Your task to perform on an android device: Go to wifi settings Image 0: 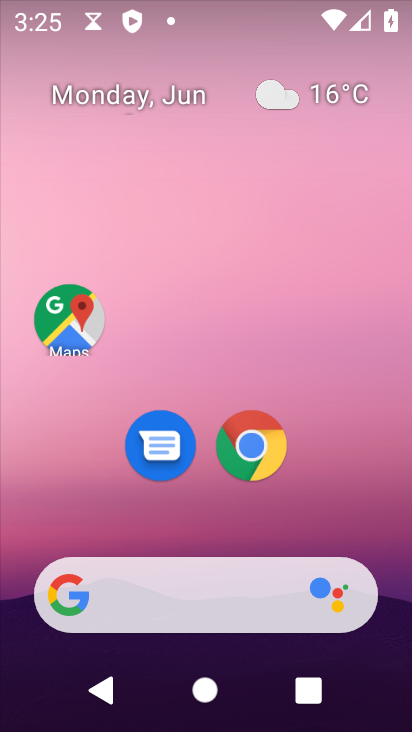
Step 0: click (208, 97)
Your task to perform on an android device: Go to wifi settings Image 1: 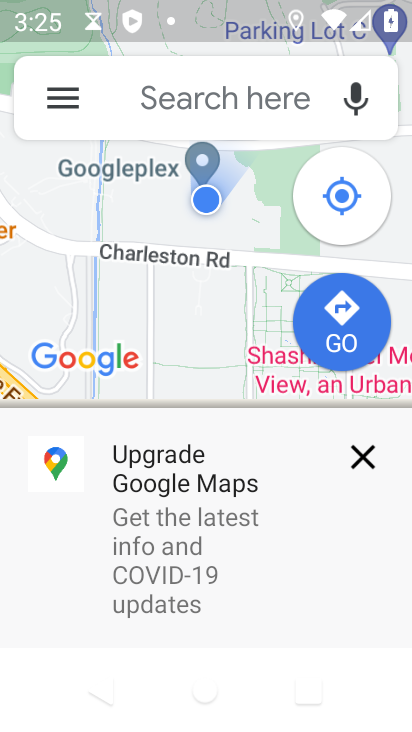
Step 1: press home button
Your task to perform on an android device: Go to wifi settings Image 2: 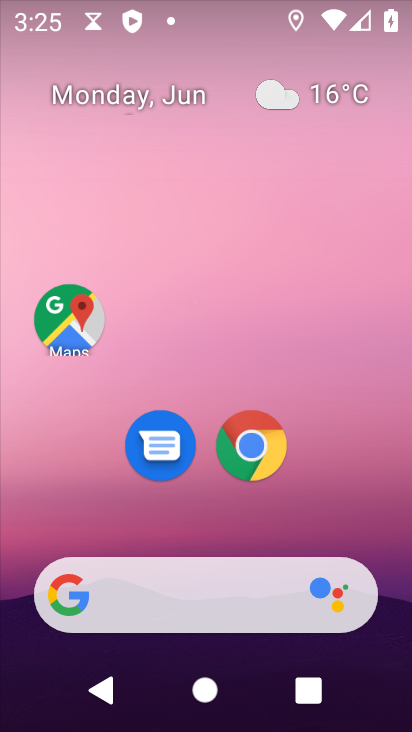
Step 2: drag from (261, 543) to (333, 4)
Your task to perform on an android device: Go to wifi settings Image 3: 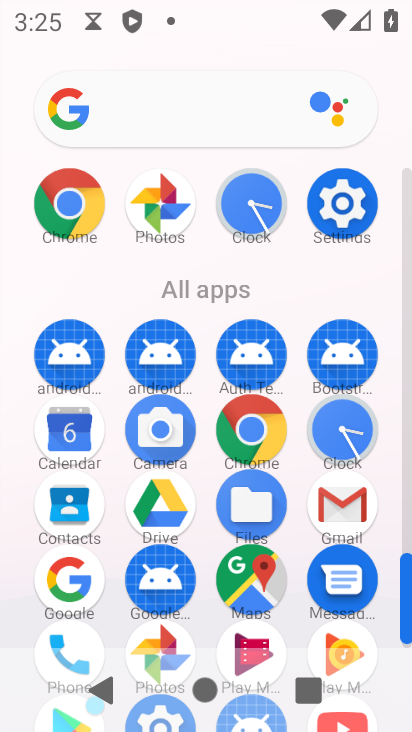
Step 3: drag from (209, 575) to (270, 206)
Your task to perform on an android device: Go to wifi settings Image 4: 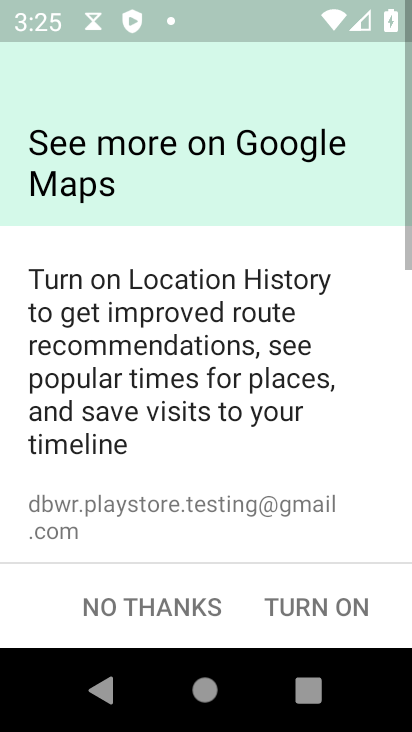
Step 4: press home button
Your task to perform on an android device: Go to wifi settings Image 5: 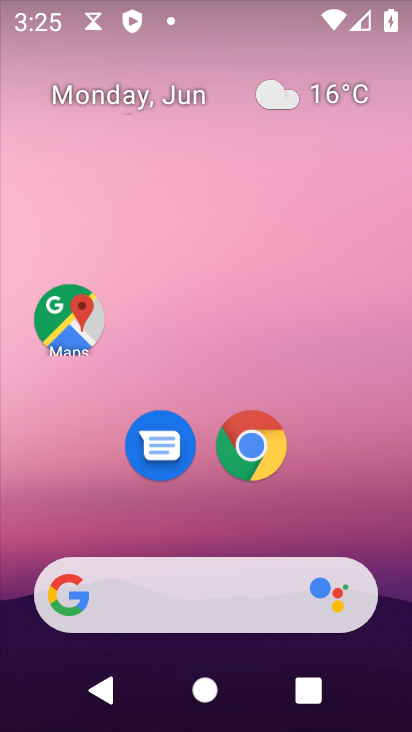
Step 5: drag from (111, 575) to (187, 144)
Your task to perform on an android device: Go to wifi settings Image 6: 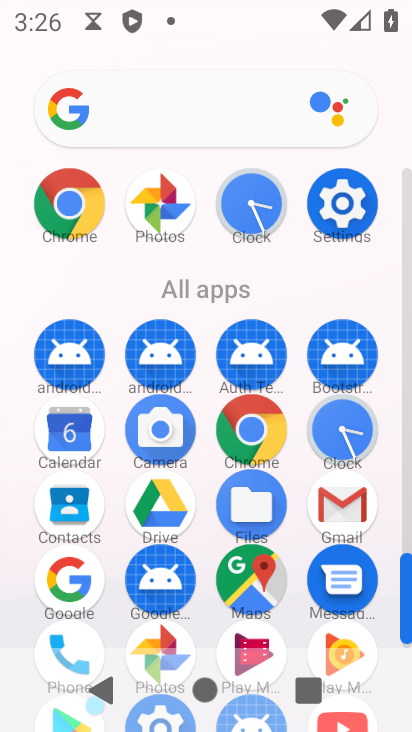
Step 6: drag from (178, 582) to (261, 234)
Your task to perform on an android device: Go to wifi settings Image 7: 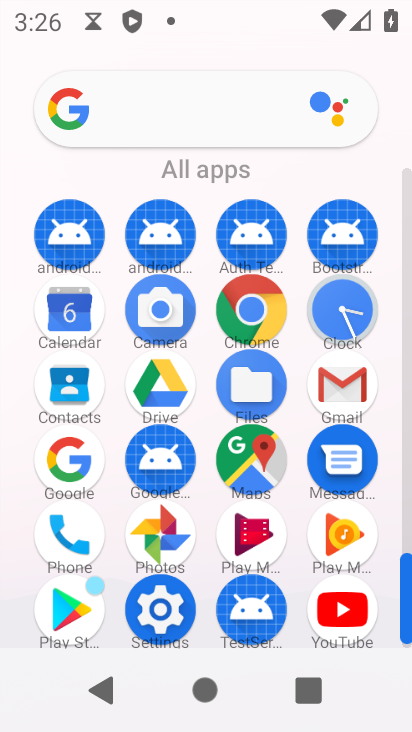
Step 7: click (160, 600)
Your task to perform on an android device: Go to wifi settings Image 8: 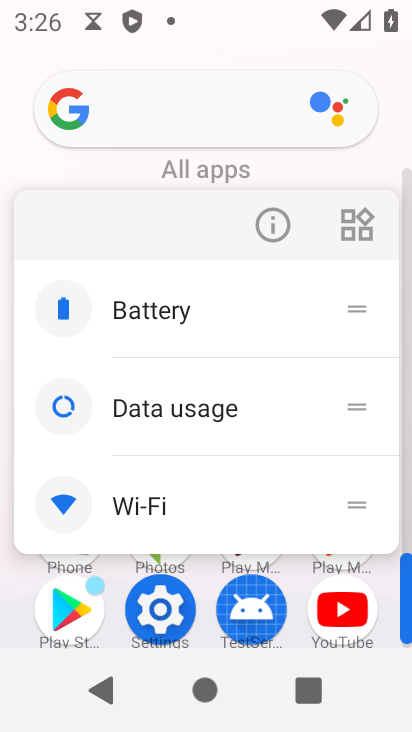
Step 8: click (159, 616)
Your task to perform on an android device: Go to wifi settings Image 9: 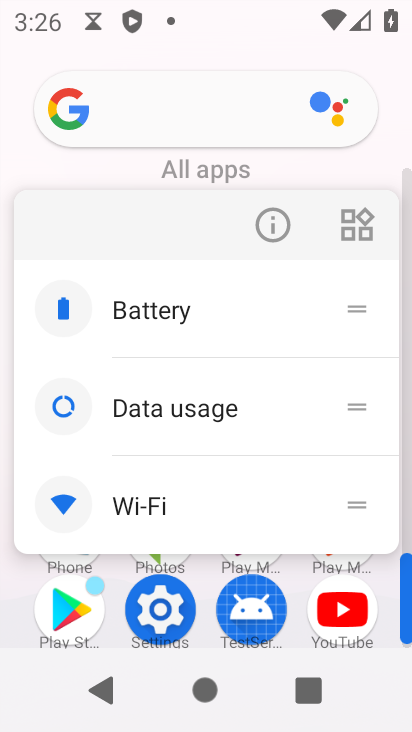
Step 9: click (159, 620)
Your task to perform on an android device: Go to wifi settings Image 10: 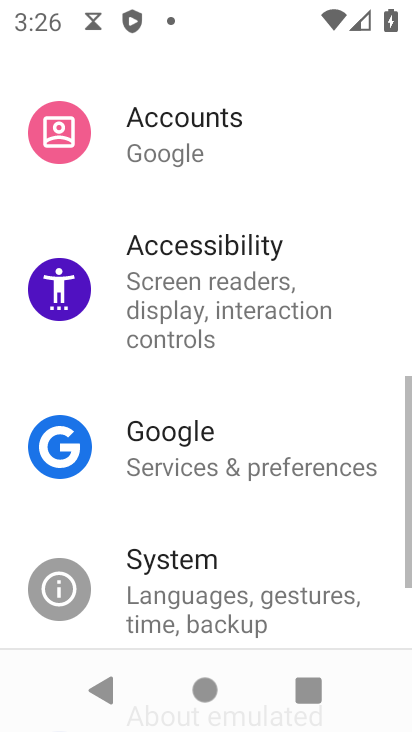
Step 10: drag from (240, 159) to (242, 725)
Your task to perform on an android device: Go to wifi settings Image 11: 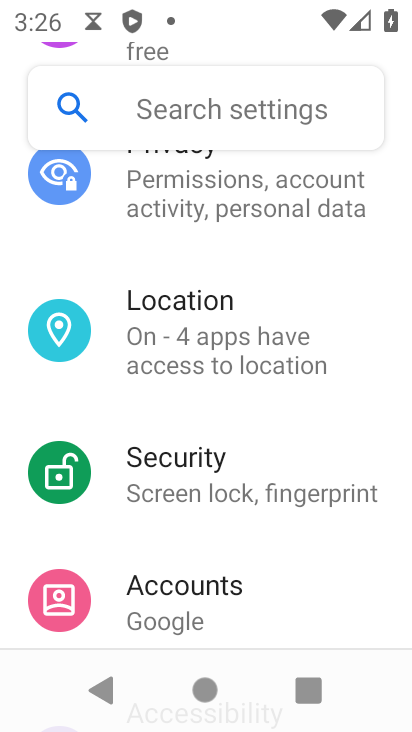
Step 11: drag from (262, 259) to (210, 723)
Your task to perform on an android device: Go to wifi settings Image 12: 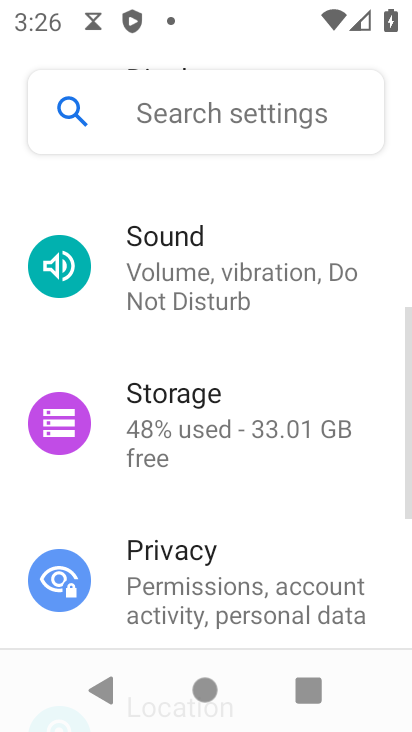
Step 12: drag from (275, 261) to (256, 723)
Your task to perform on an android device: Go to wifi settings Image 13: 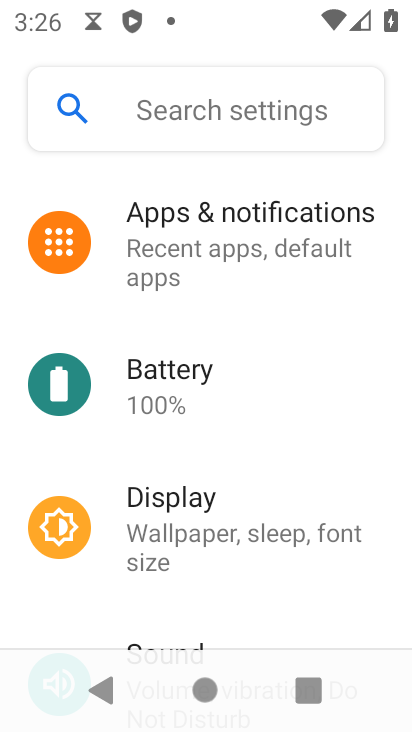
Step 13: drag from (262, 272) to (256, 647)
Your task to perform on an android device: Go to wifi settings Image 14: 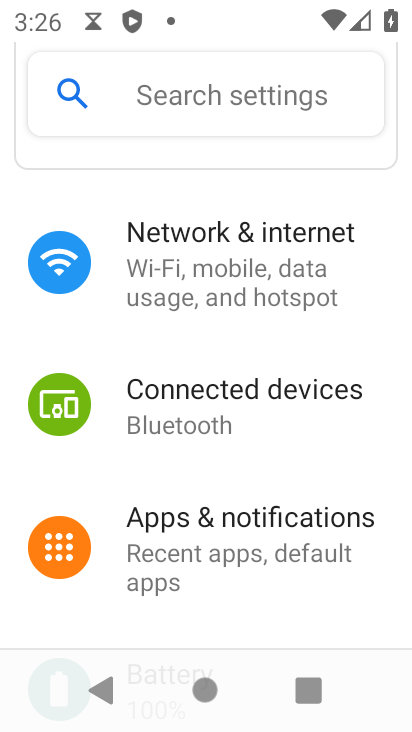
Step 14: click (274, 306)
Your task to perform on an android device: Go to wifi settings Image 15: 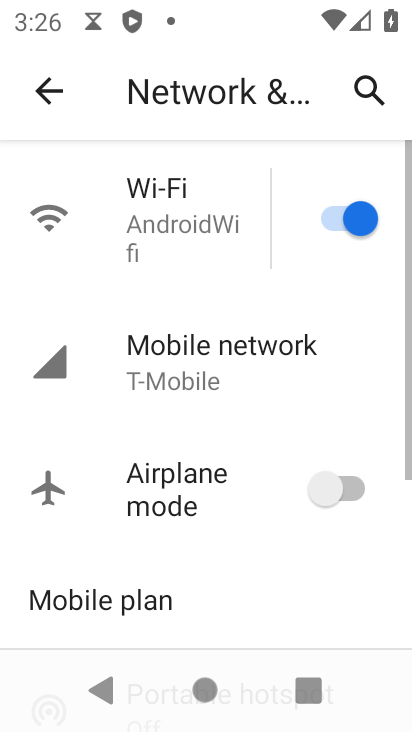
Step 15: click (141, 242)
Your task to perform on an android device: Go to wifi settings Image 16: 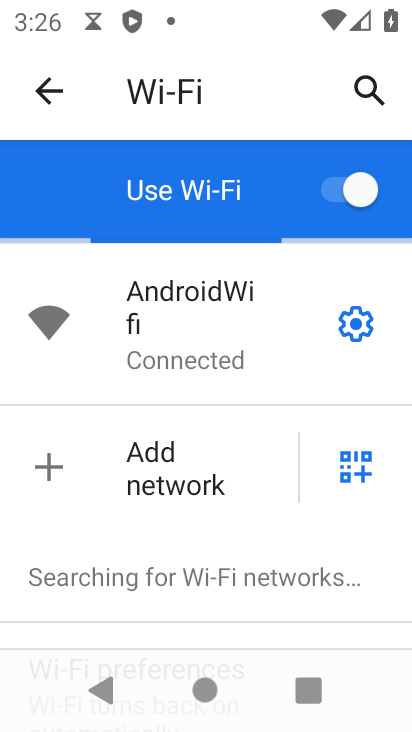
Step 16: task complete